Your task to perform on an android device: turn on the 12-hour format for clock Image 0: 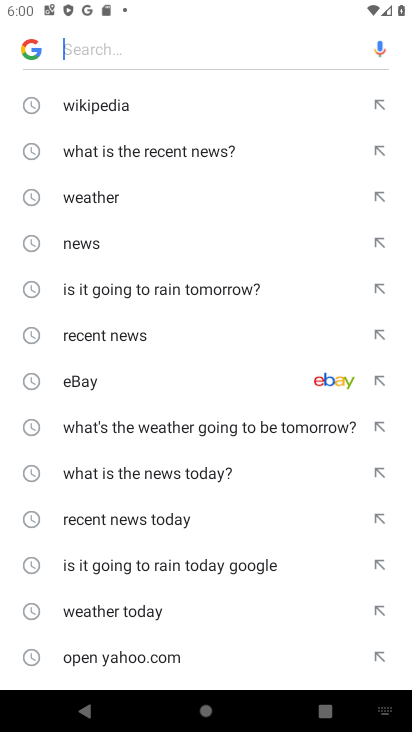
Step 0: press home button
Your task to perform on an android device: turn on the 12-hour format for clock Image 1: 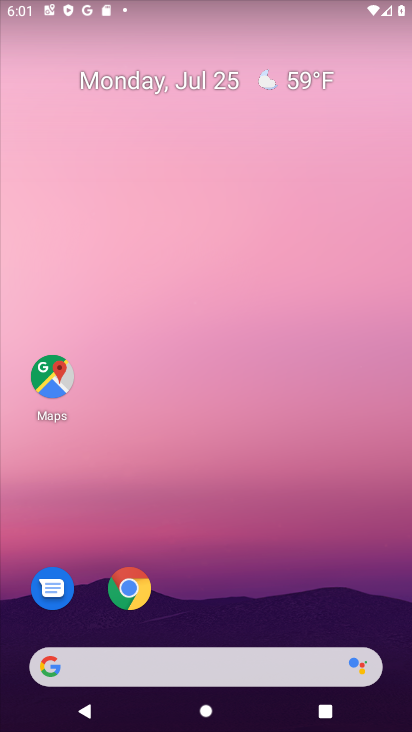
Step 1: drag from (280, 597) to (301, 259)
Your task to perform on an android device: turn on the 12-hour format for clock Image 2: 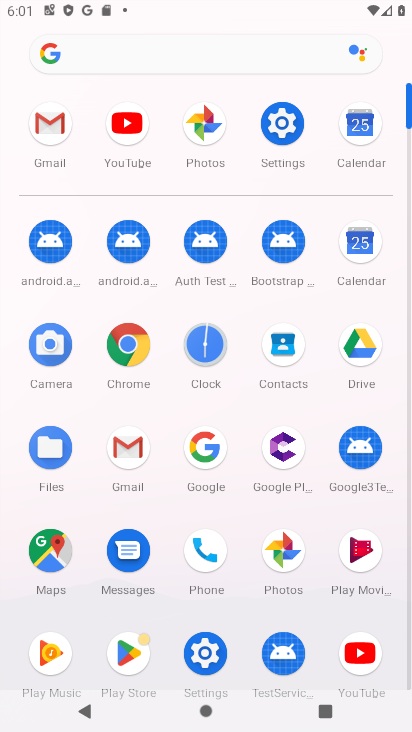
Step 2: click (203, 352)
Your task to perform on an android device: turn on the 12-hour format for clock Image 3: 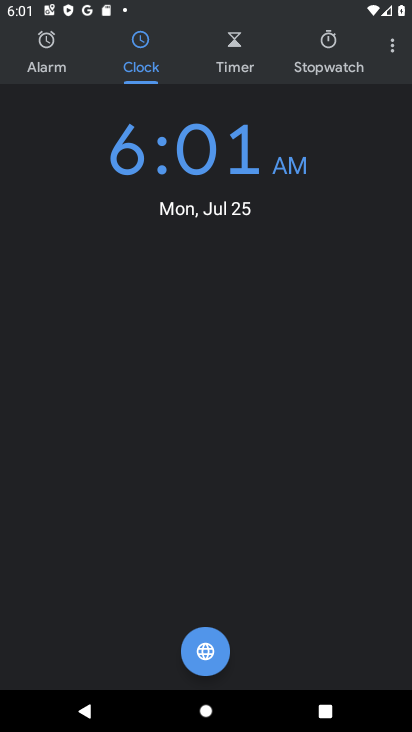
Step 3: click (391, 48)
Your task to perform on an android device: turn on the 12-hour format for clock Image 4: 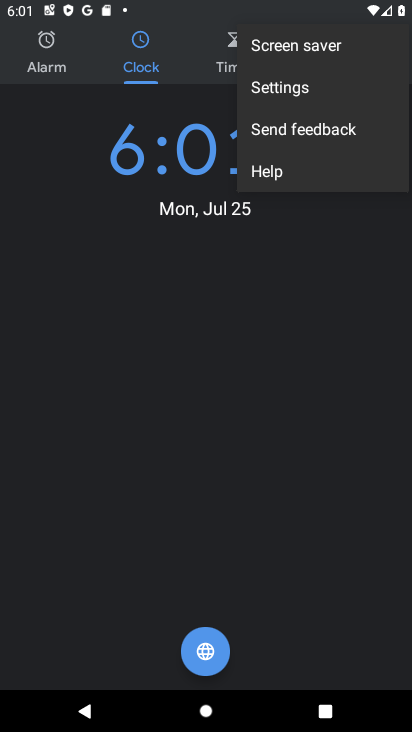
Step 4: click (301, 86)
Your task to perform on an android device: turn on the 12-hour format for clock Image 5: 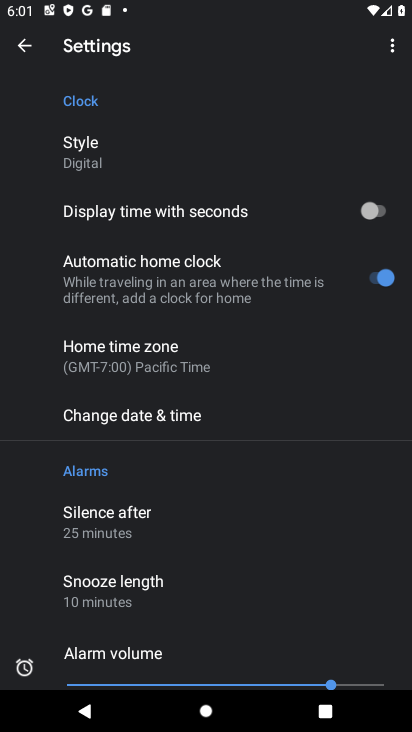
Step 5: task complete